Your task to perform on an android device: all mails in gmail Image 0: 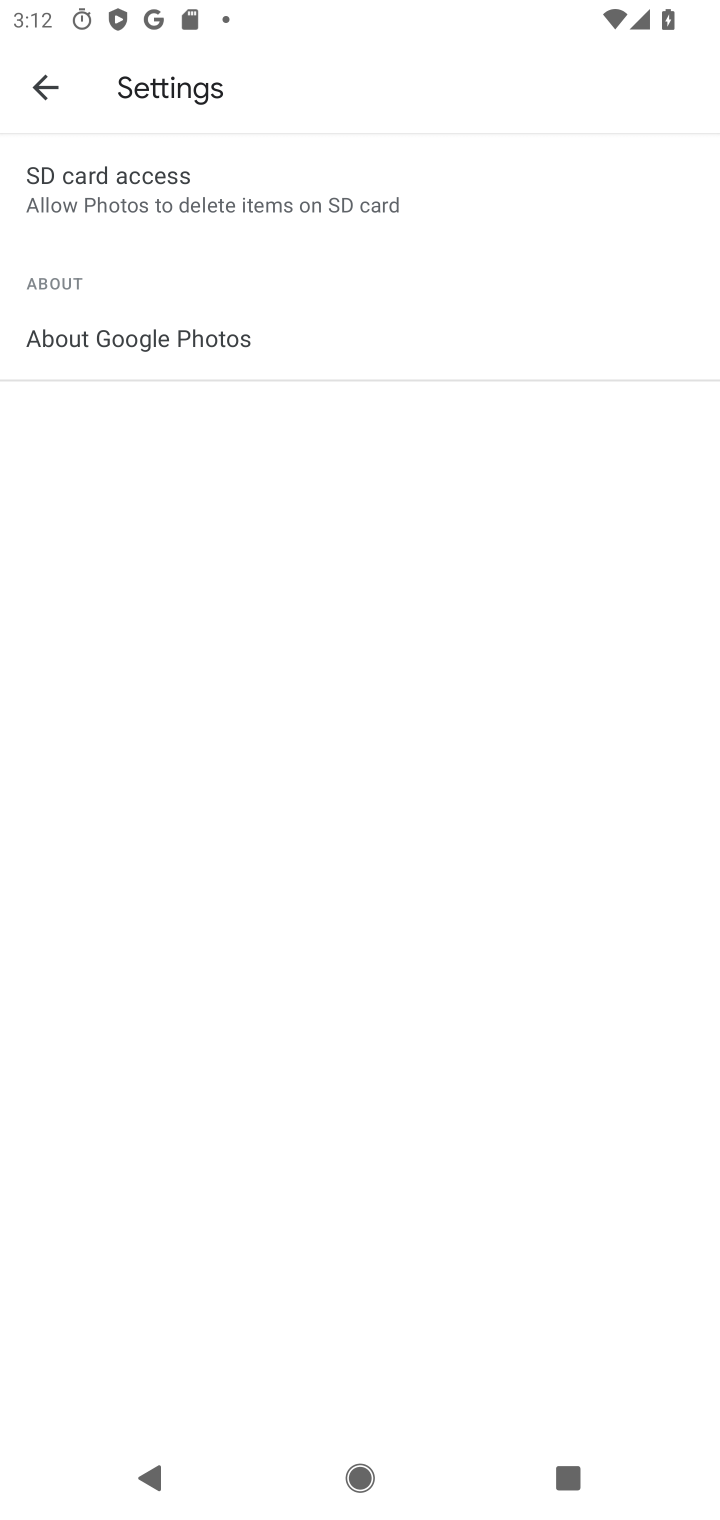
Step 0: press back button
Your task to perform on an android device: all mails in gmail Image 1: 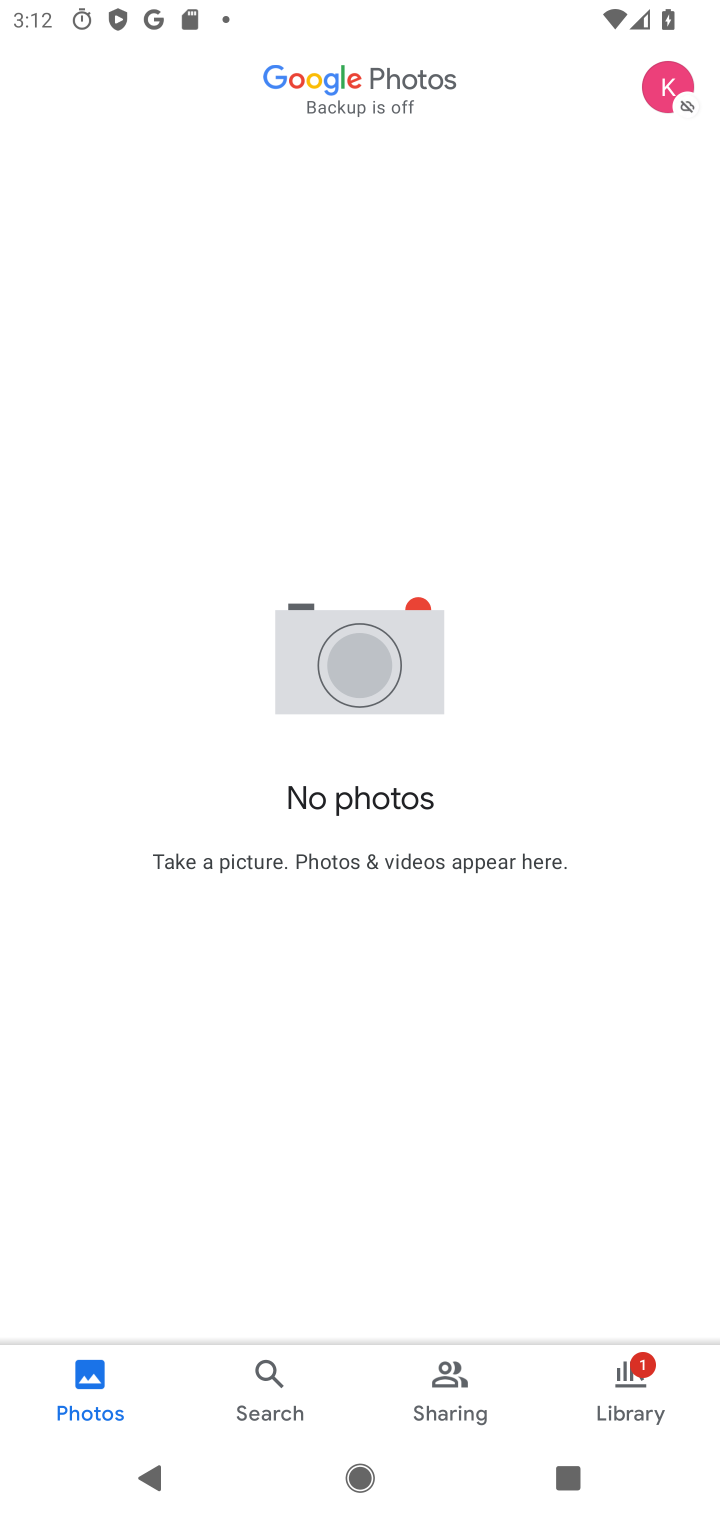
Step 1: press back button
Your task to perform on an android device: all mails in gmail Image 2: 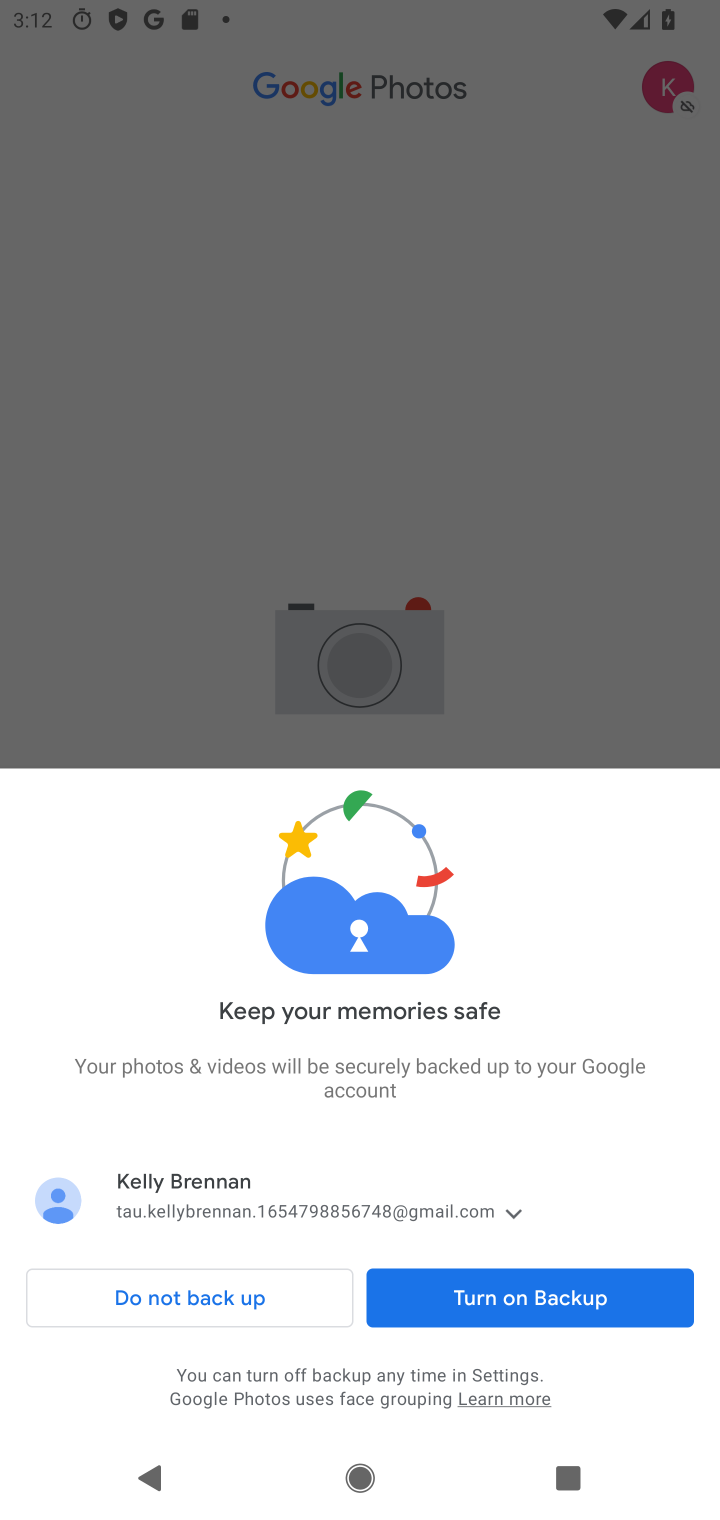
Step 2: press home button
Your task to perform on an android device: all mails in gmail Image 3: 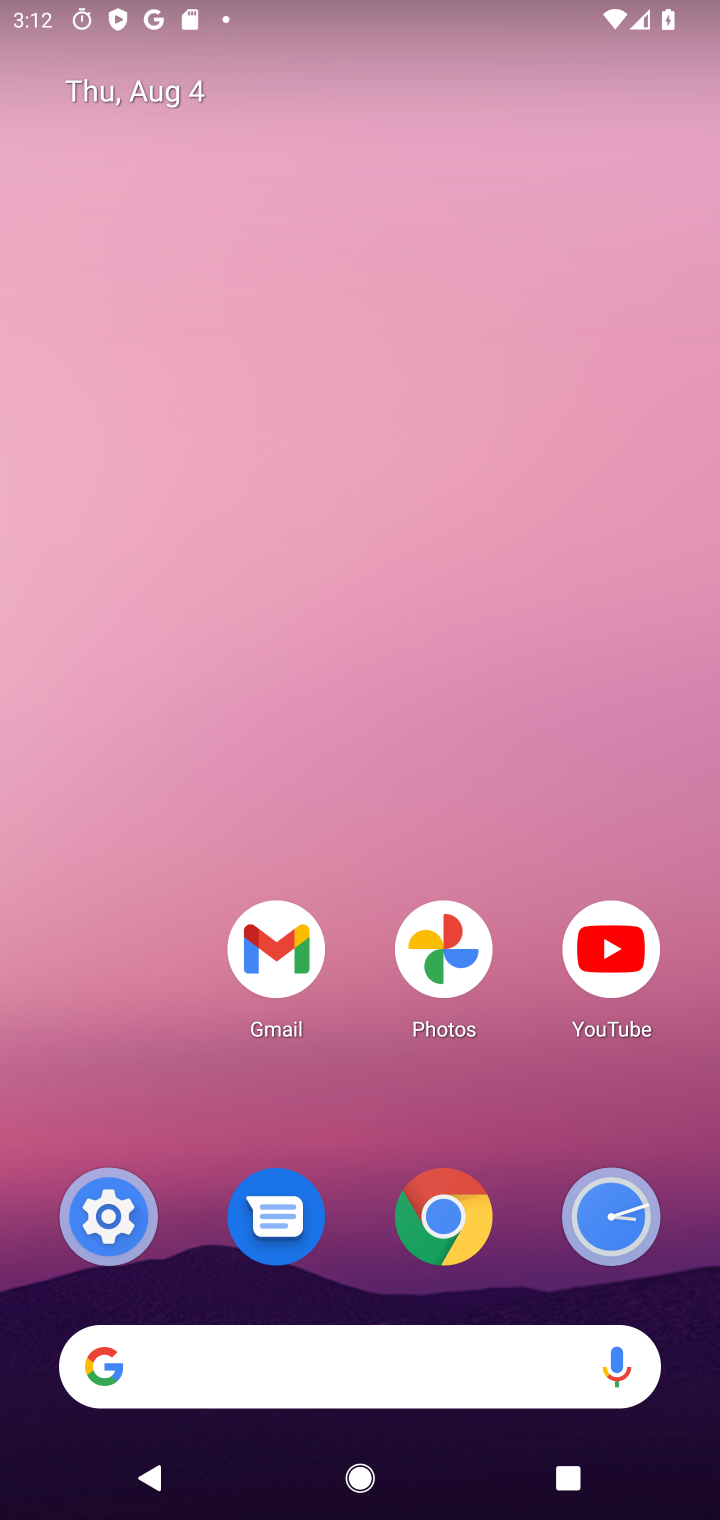
Step 3: click (276, 958)
Your task to perform on an android device: all mails in gmail Image 4: 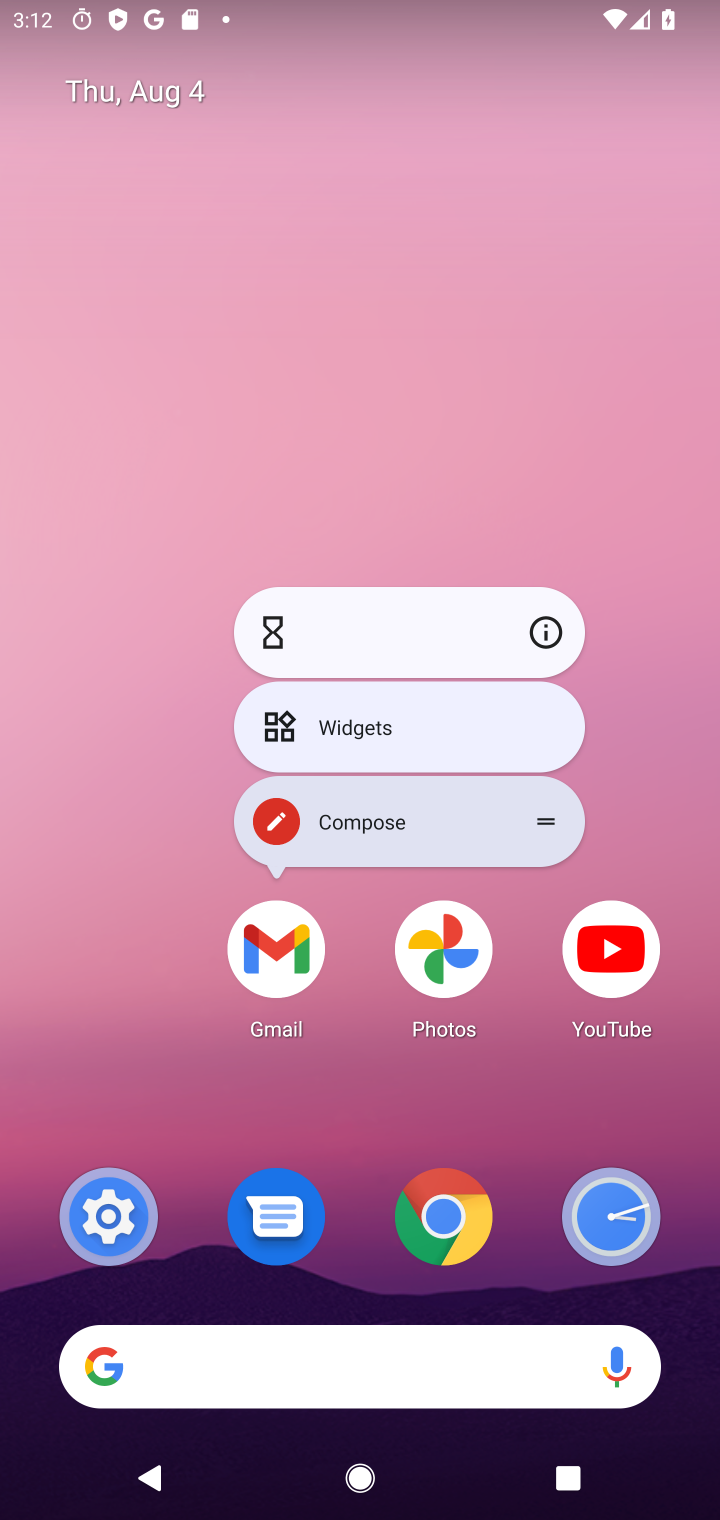
Step 4: click (280, 966)
Your task to perform on an android device: all mails in gmail Image 5: 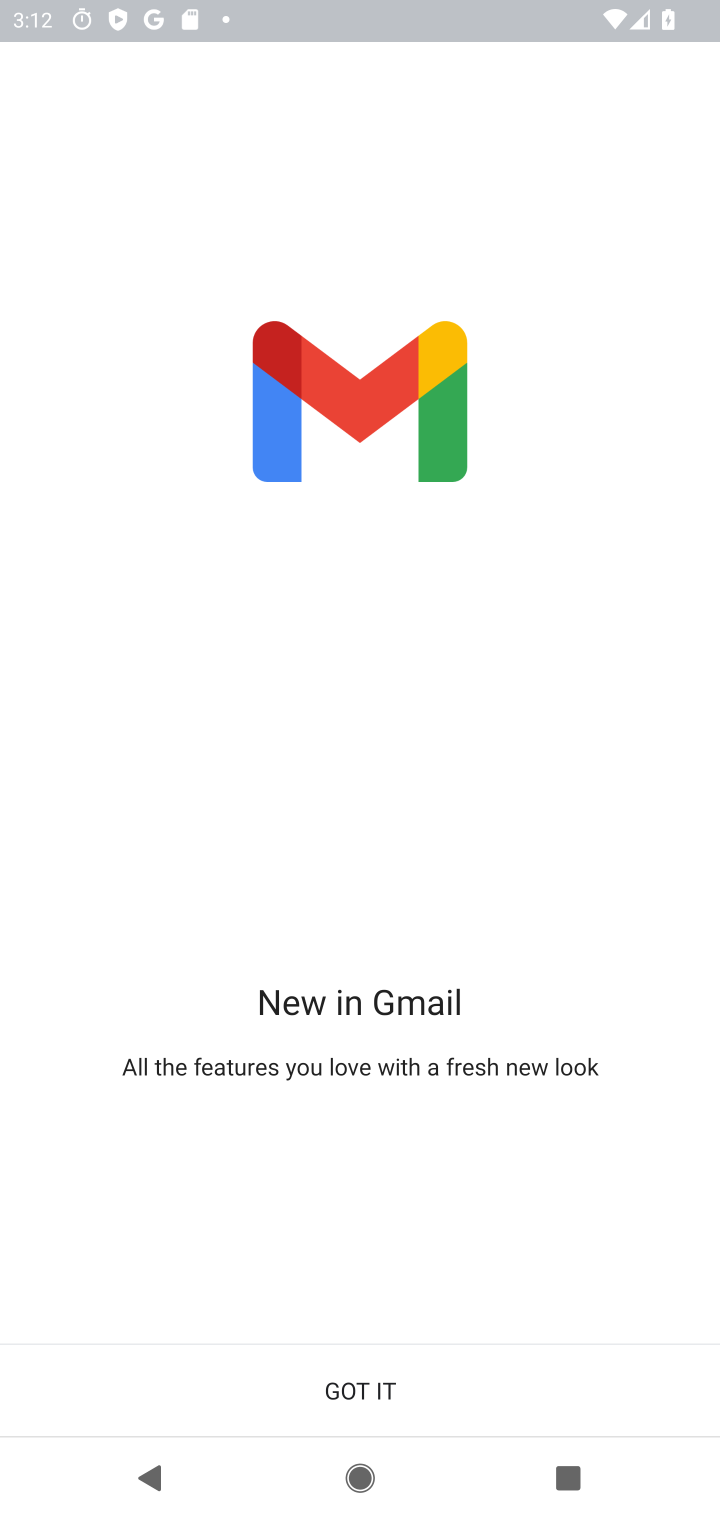
Step 5: click (377, 1385)
Your task to perform on an android device: all mails in gmail Image 6: 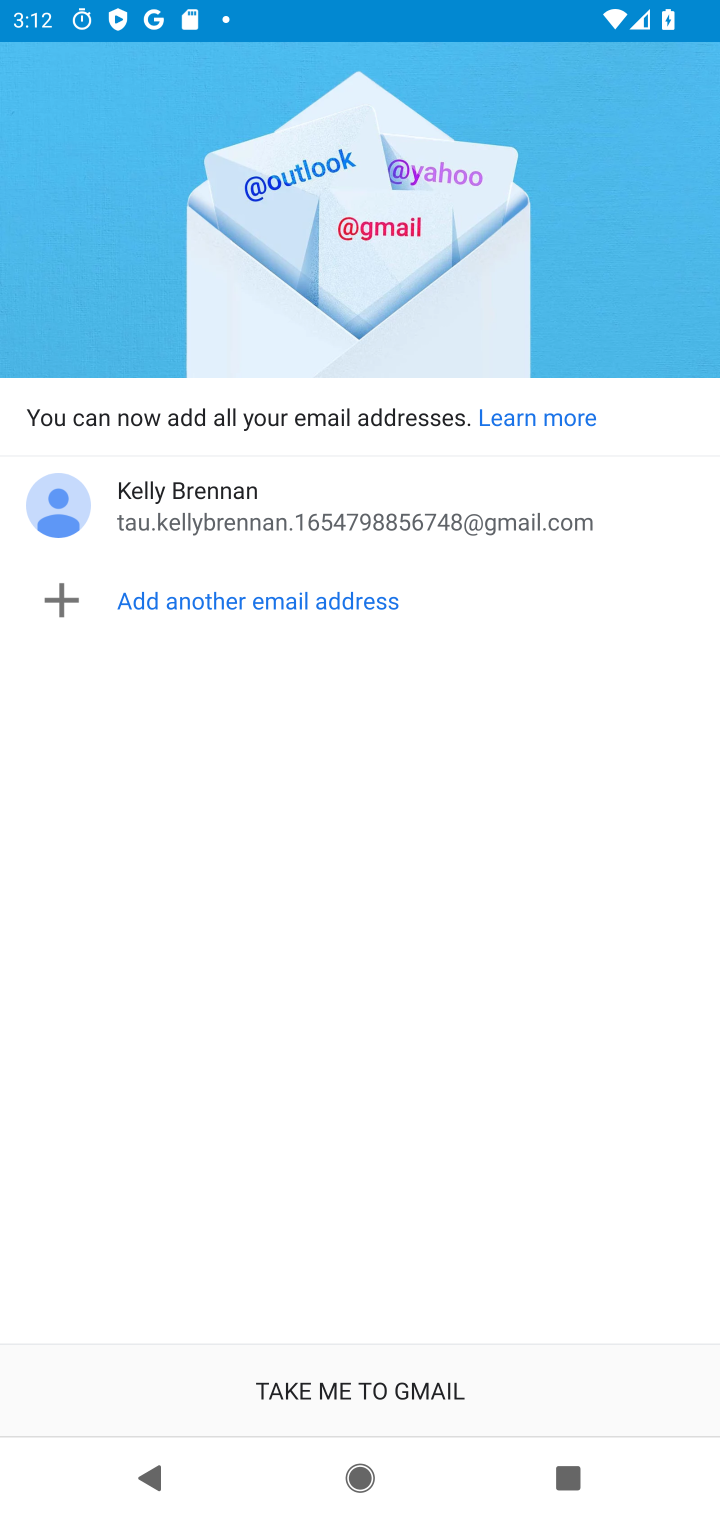
Step 6: click (389, 1379)
Your task to perform on an android device: all mails in gmail Image 7: 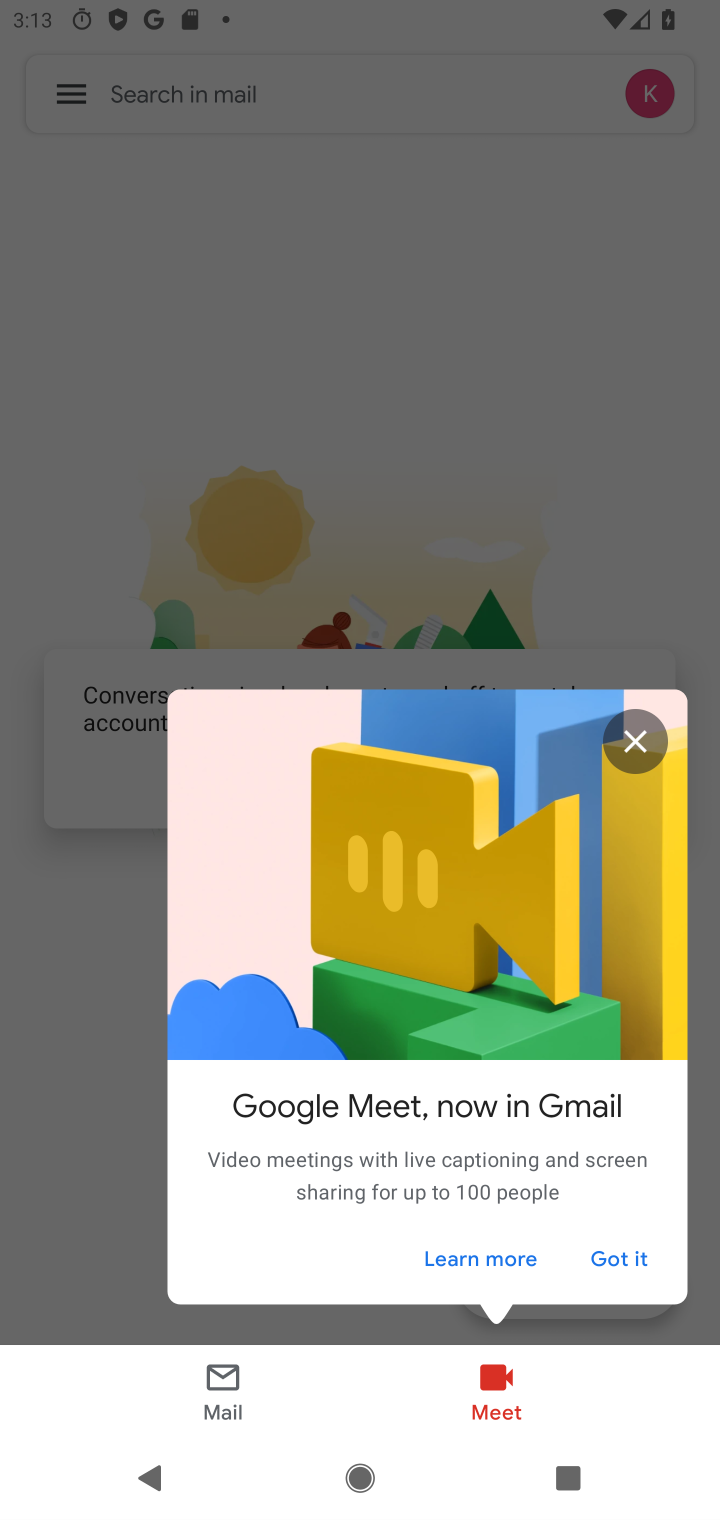
Step 7: click (619, 1267)
Your task to perform on an android device: all mails in gmail Image 8: 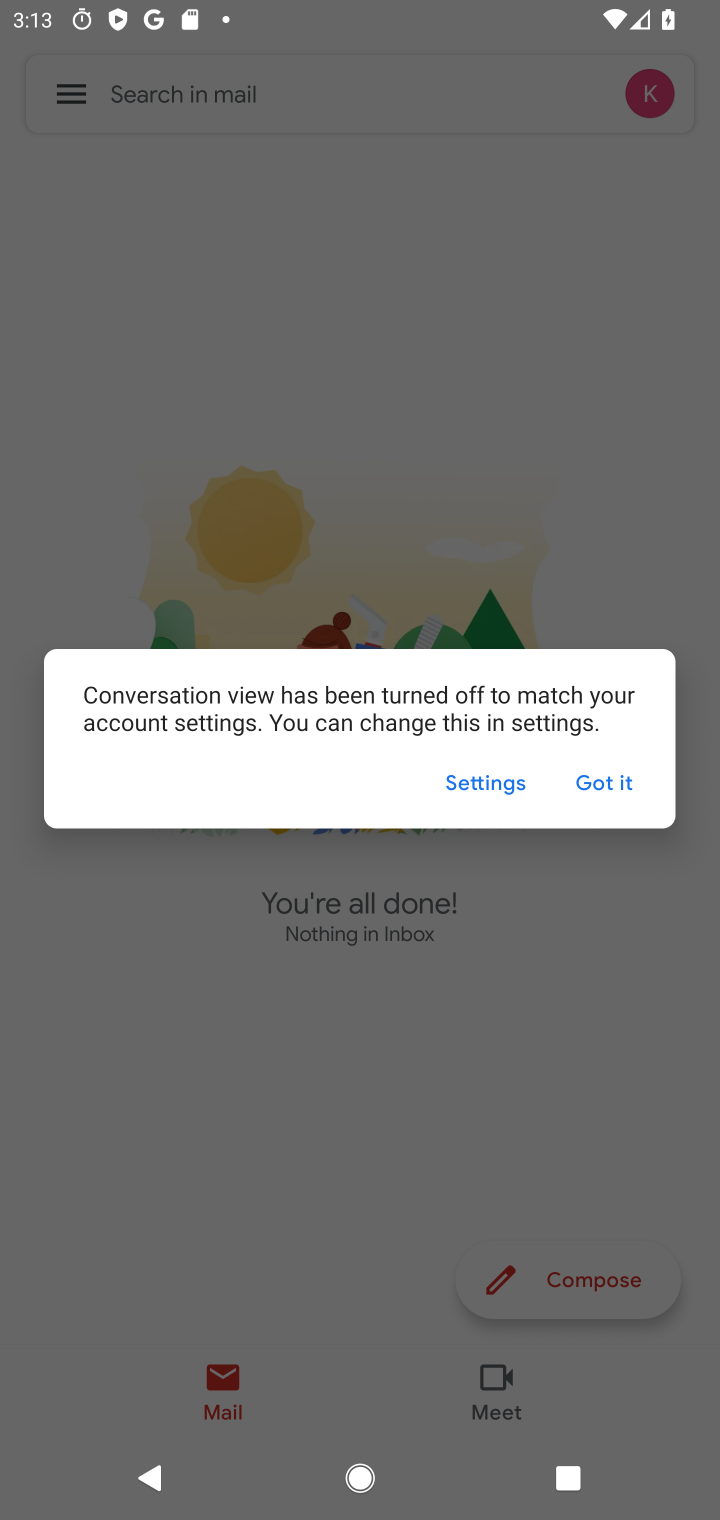
Step 8: click (593, 787)
Your task to perform on an android device: all mails in gmail Image 9: 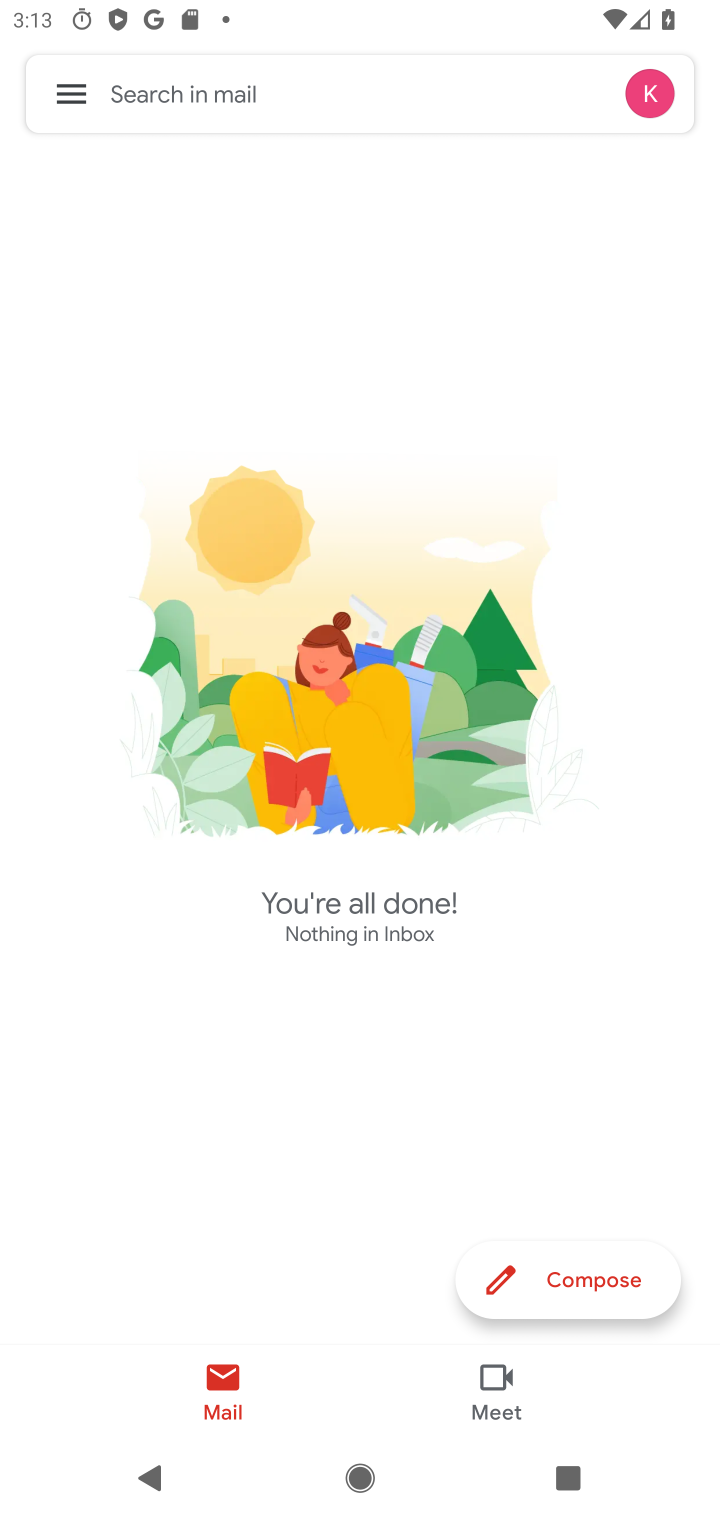
Step 9: click (91, 103)
Your task to perform on an android device: all mails in gmail Image 10: 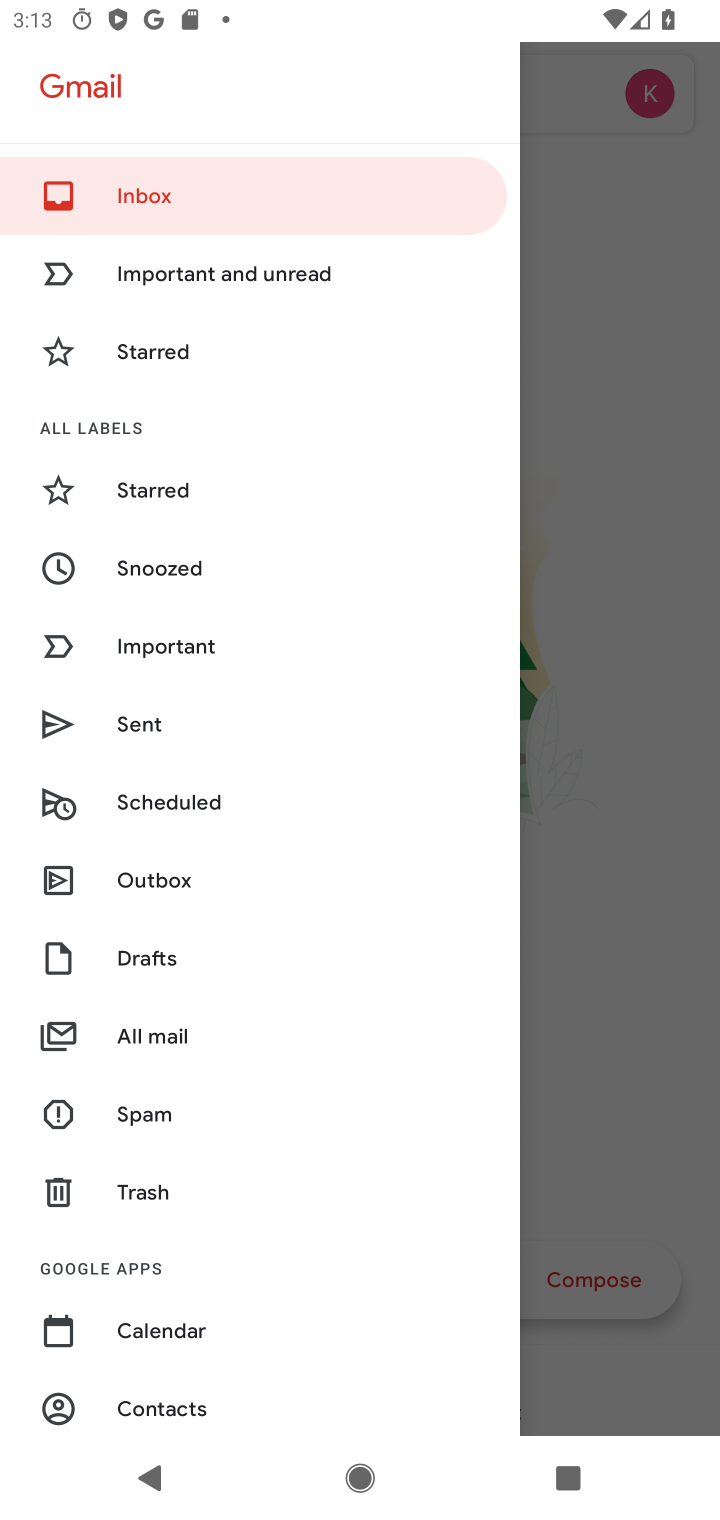
Step 10: click (197, 1037)
Your task to perform on an android device: all mails in gmail Image 11: 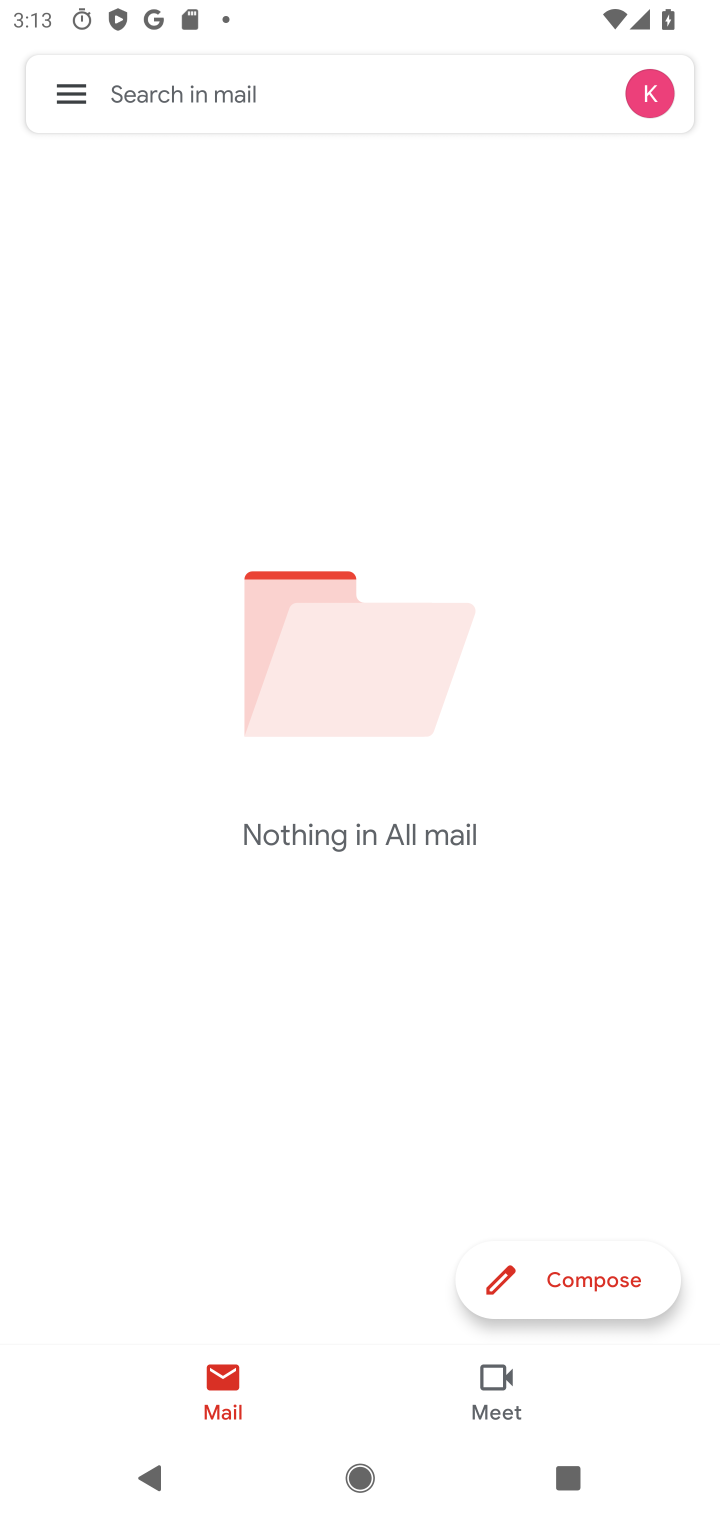
Step 11: task complete